Your task to perform on an android device: Open Wikipedia Image 0: 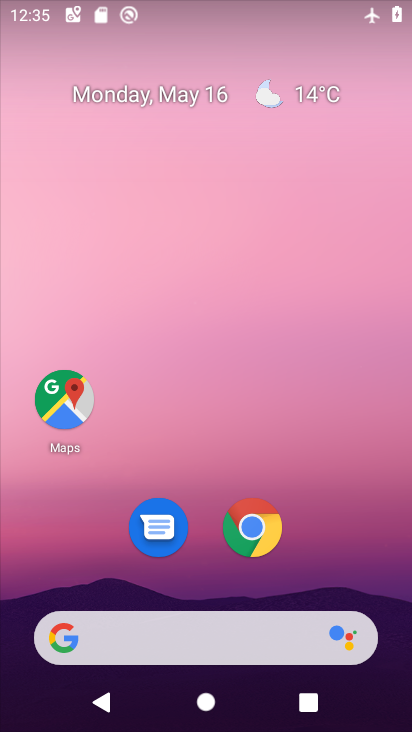
Step 0: click (254, 512)
Your task to perform on an android device: Open Wikipedia Image 1: 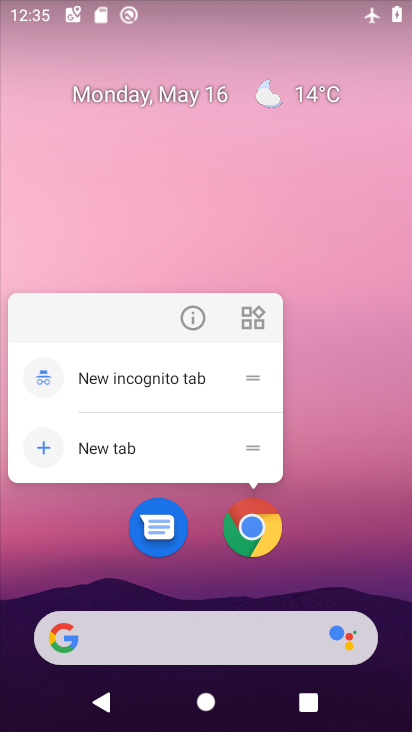
Step 1: click (258, 525)
Your task to perform on an android device: Open Wikipedia Image 2: 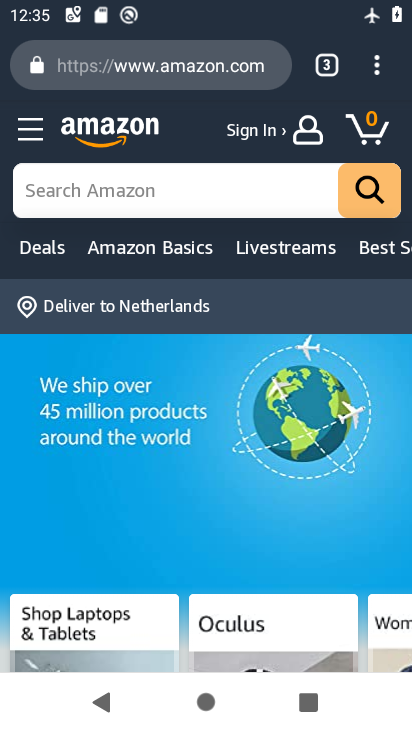
Step 2: click (383, 65)
Your task to perform on an android device: Open Wikipedia Image 3: 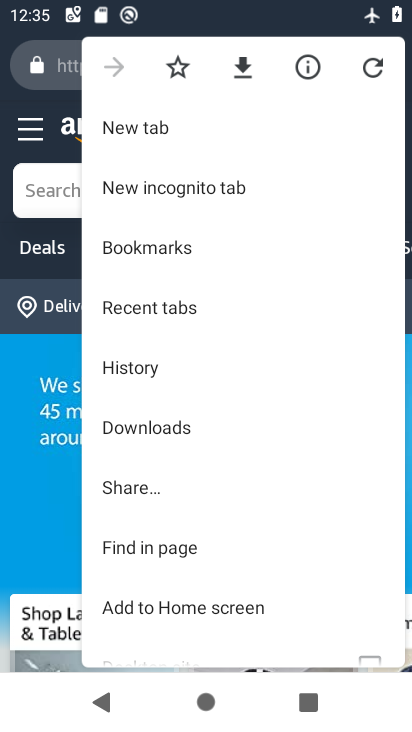
Step 3: click (46, 192)
Your task to perform on an android device: Open Wikipedia Image 4: 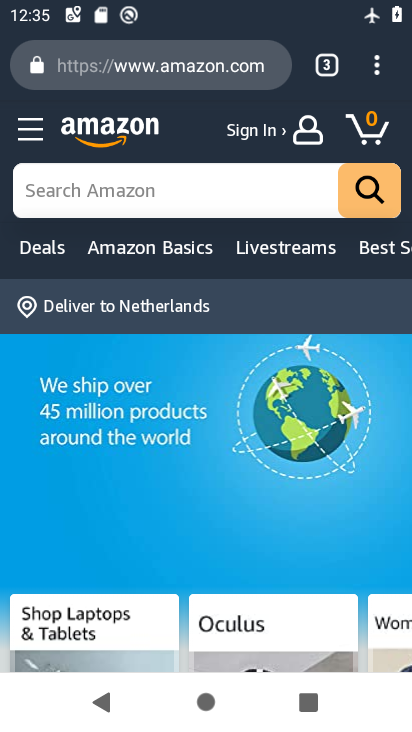
Step 4: click (60, 61)
Your task to perform on an android device: Open Wikipedia Image 5: 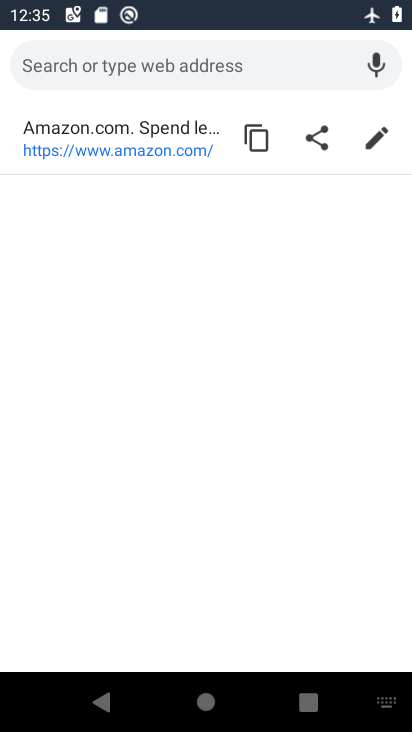
Step 5: type "wikipedia"
Your task to perform on an android device: Open Wikipedia Image 6: 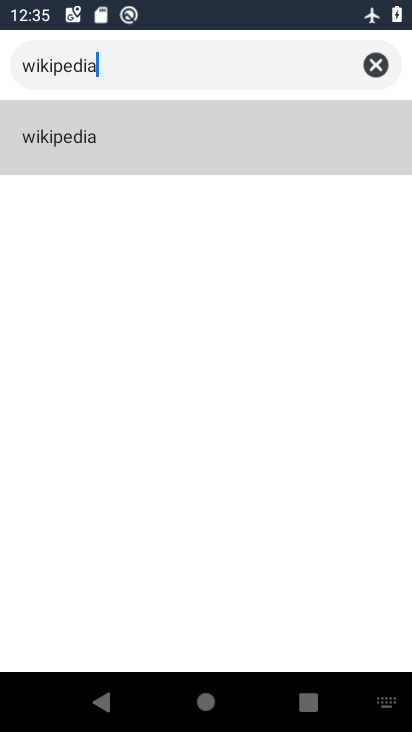
Step 6: click (123, 133)
Your task to perform on an android device: Open Wikipedia Image 7: 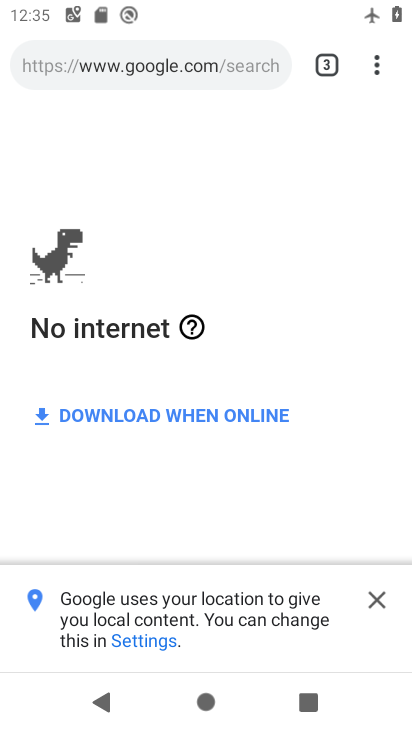
Step 7: task complete